Your task to perform on an android device: choose inbox layout in the gmail app Image 0: 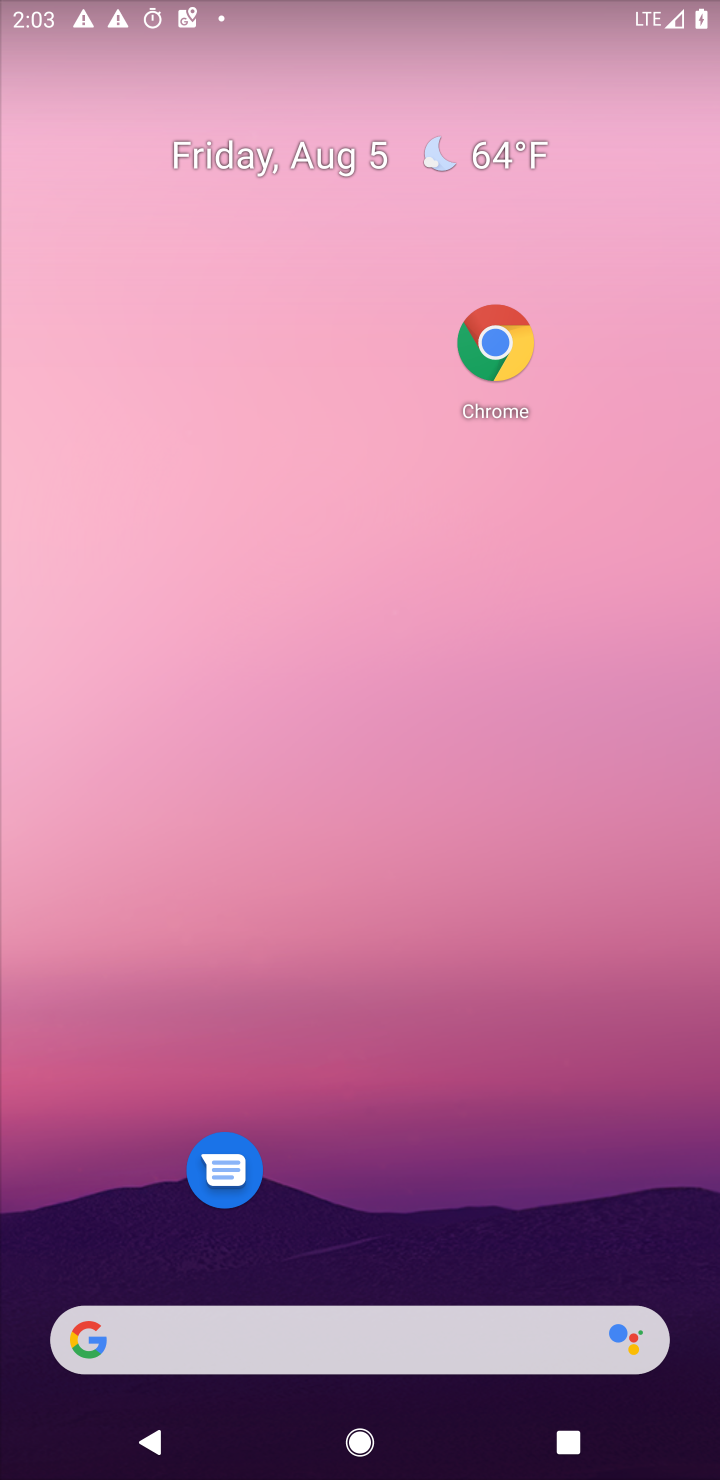
Step 0: drag from (354, 1021) to (376, 88)
Your task to perform on an android device: choose inbox layout in the gmail app Image 1: 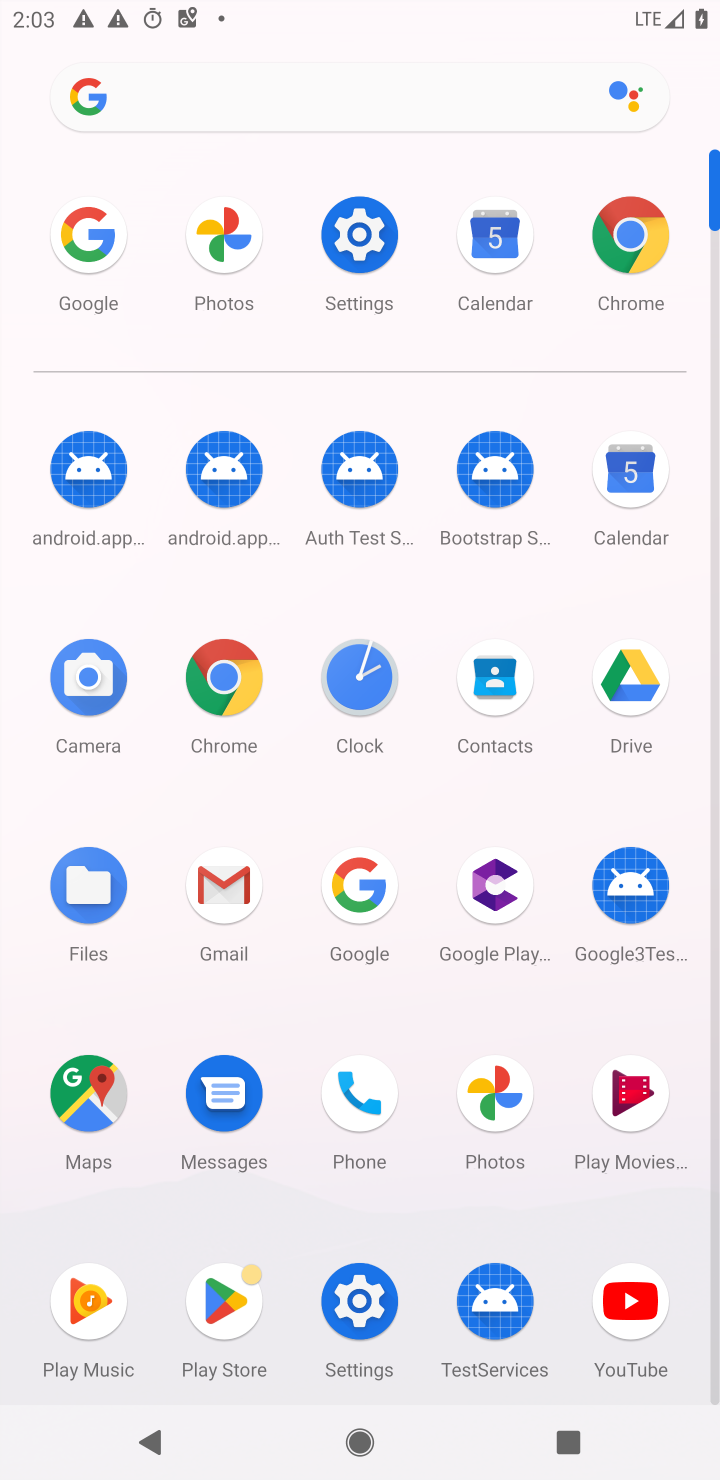
Step 1: click (204, 876)
Your task to perform on an android device: choose inbox layout in the gmail app Image 2: 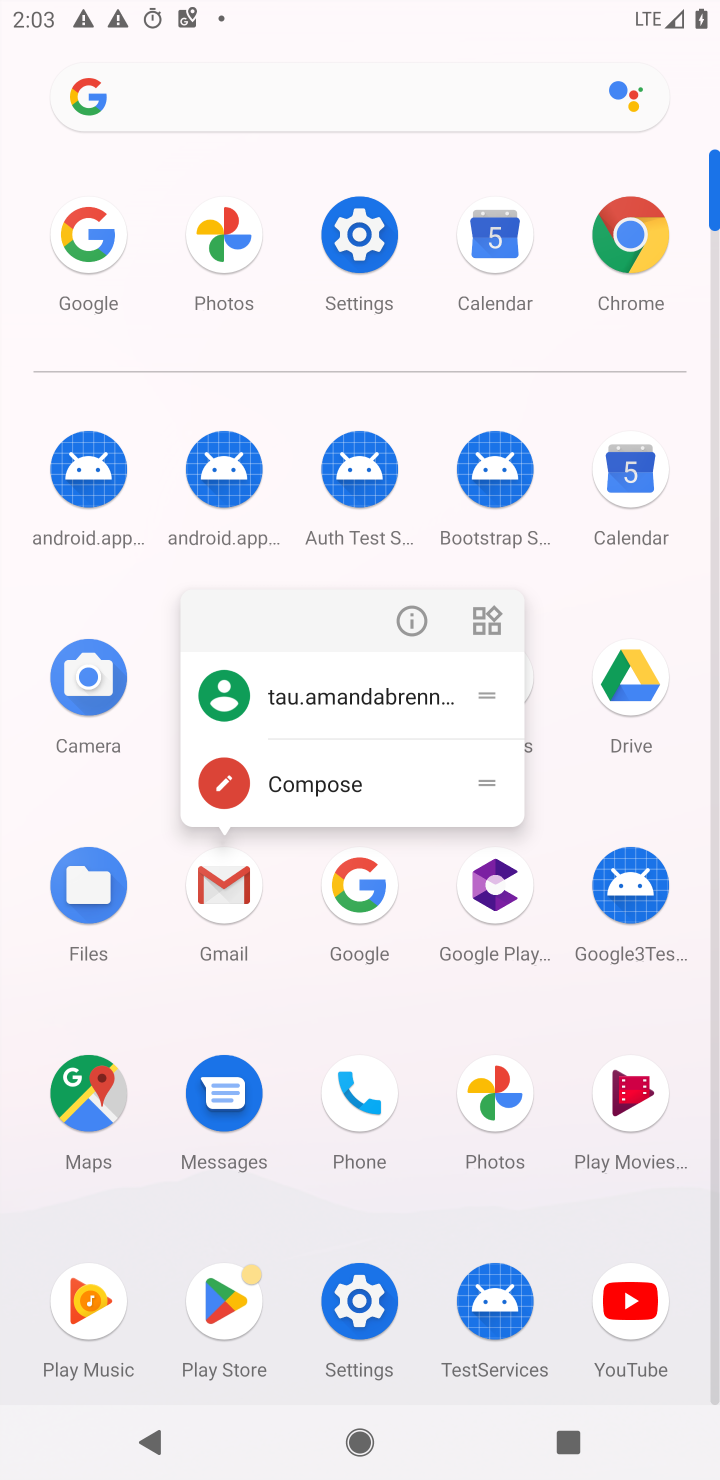
Step 2: click (233, 895)
Your task to perform on an android device: choose inbox layout in the gmail app Image 3: 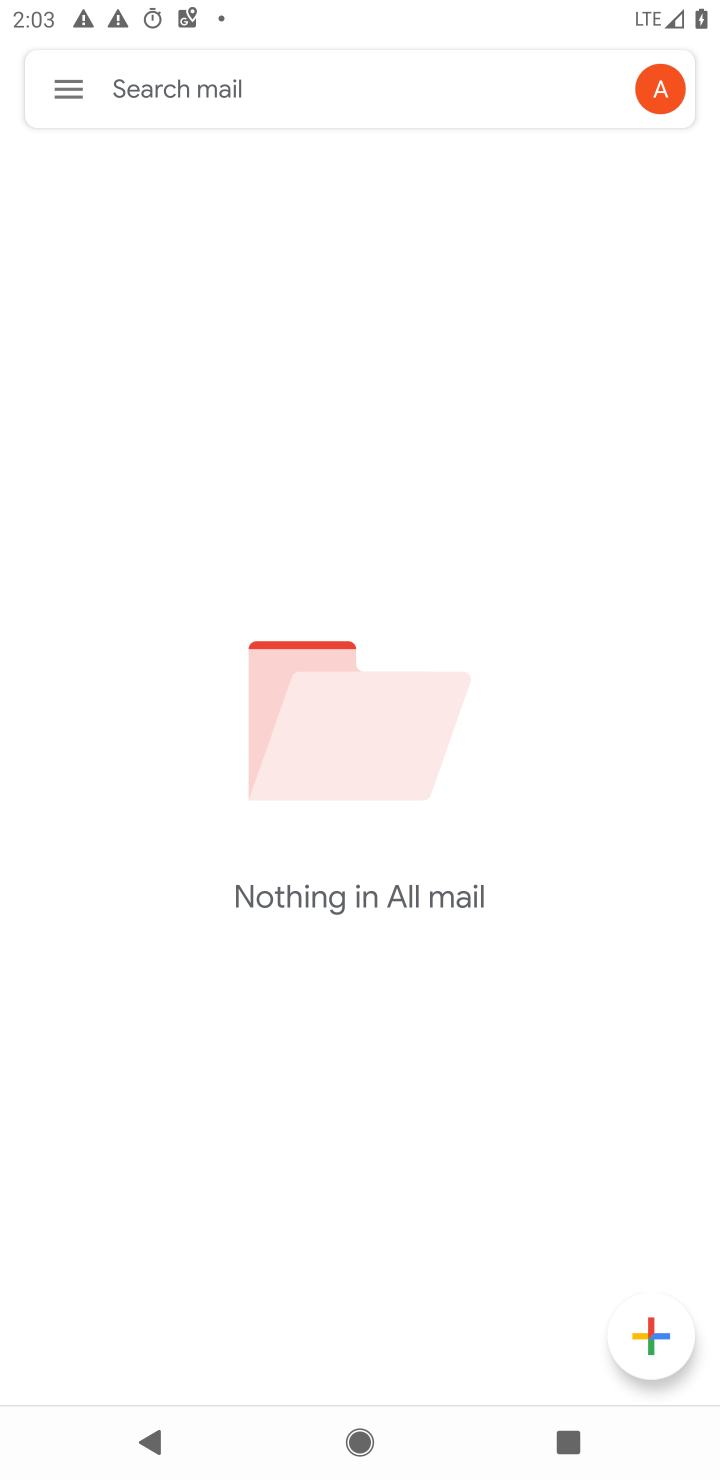
Step 3: click (52, 99)
Your task to perform on an android device: choose inbox layout in the gmail app Image 4: 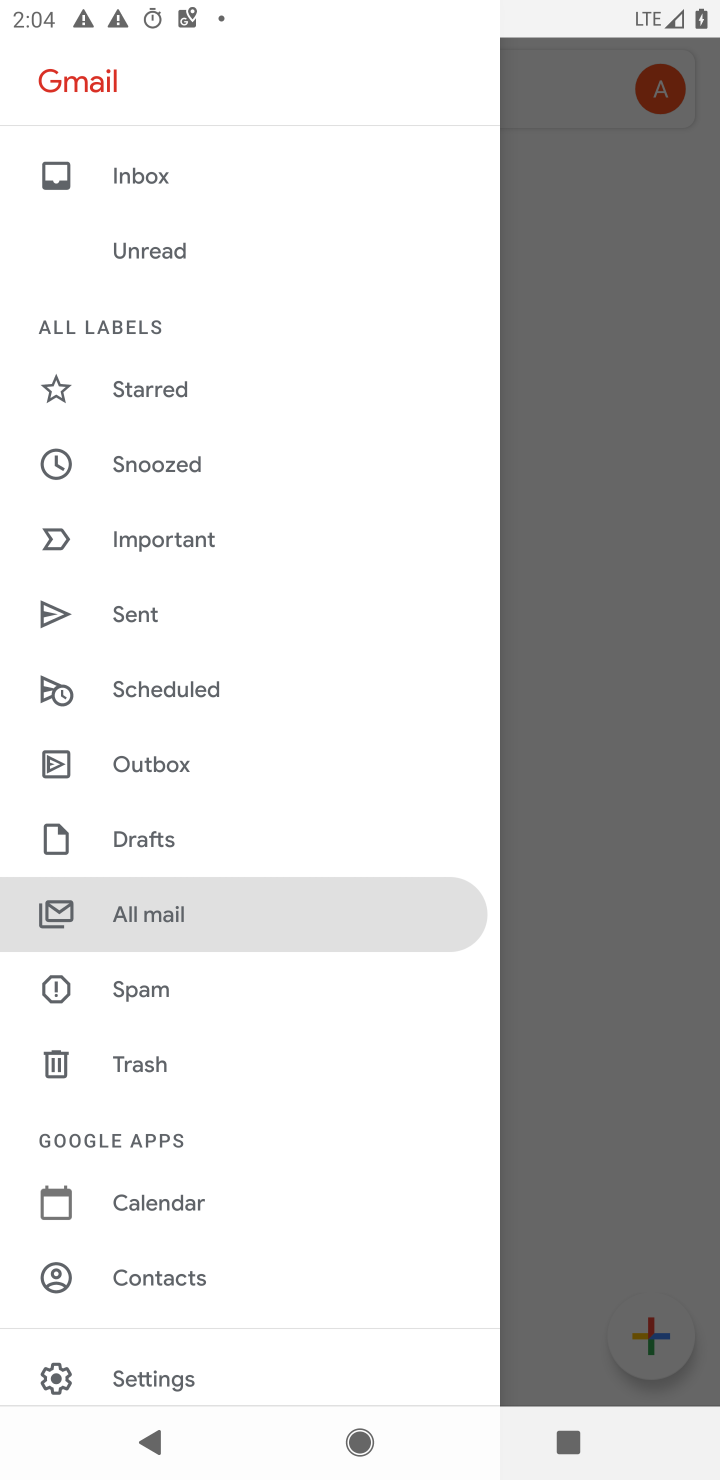
Step 4: drag from (319, 308) to (194, 882)
Your task to perform on an android device: choose inbox layout in the gmail app Image 5: 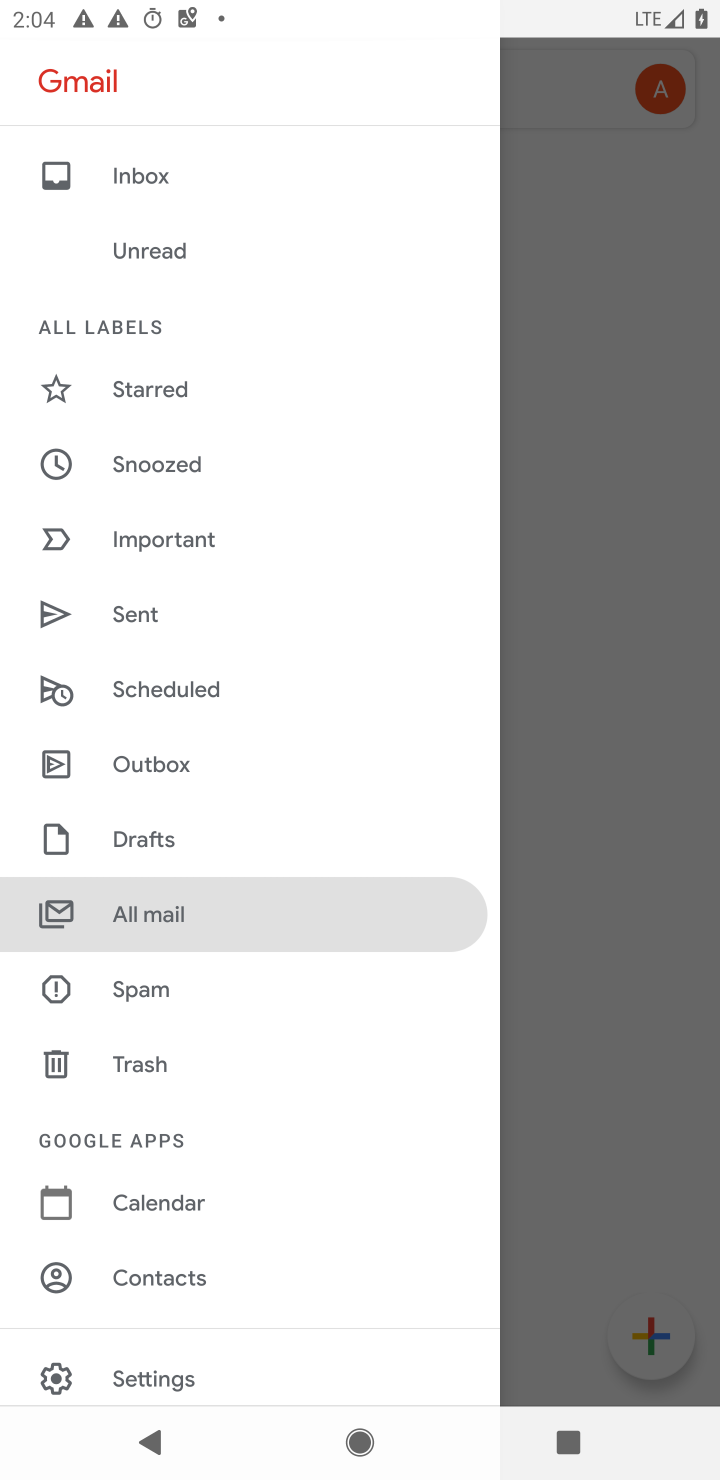
Step 5: click (186, 178)
Your task to perform on an android device: choose inbox layout in the gmail app Image 6: 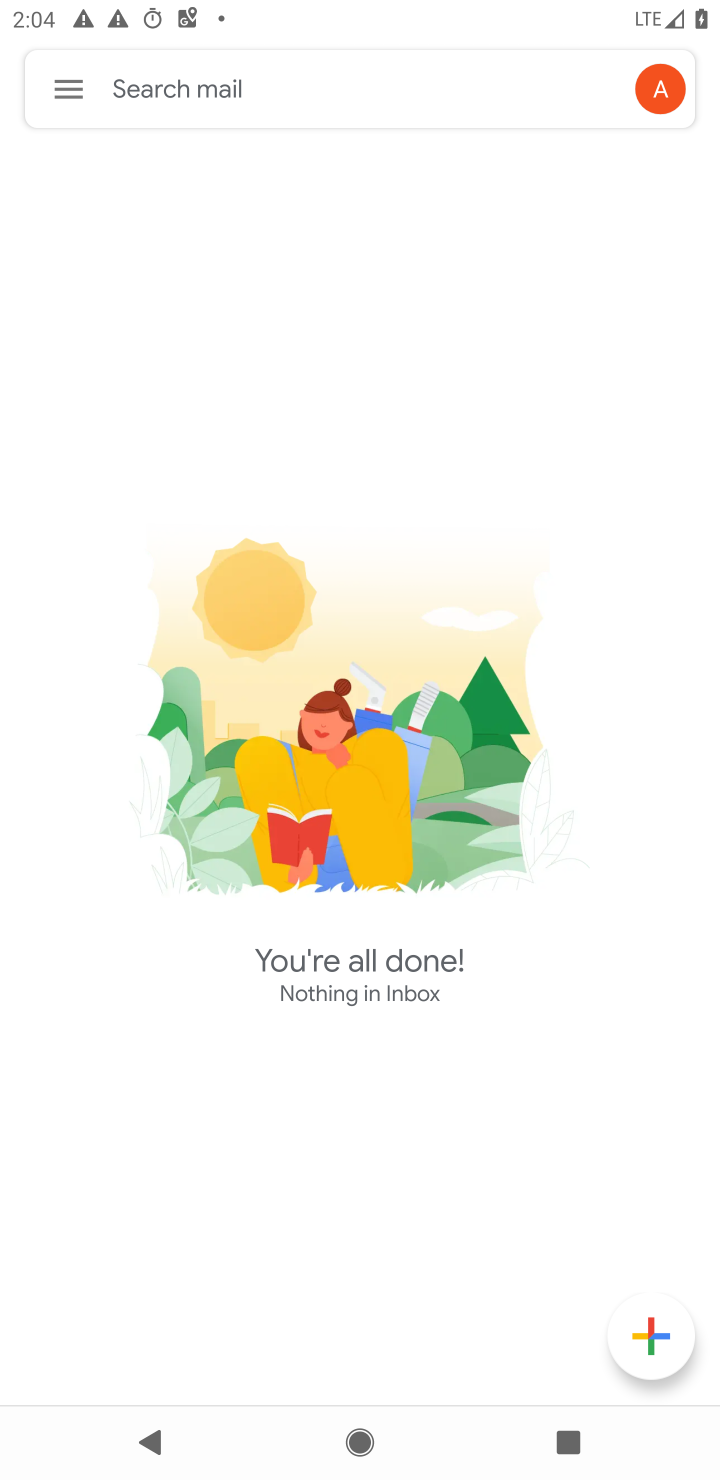
Step 6: task complete